Your task to perform on an android device: What's US dollar exchange rateagainst the Mexican Peso? Image 0: 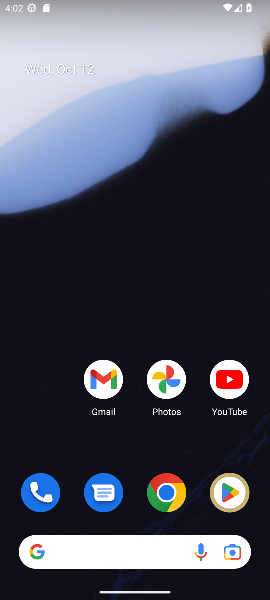
Step 0: click (176, 500)
Your task to perform on an android device: What's US dollar exchange rateagainst the Mexican Peso? Image 1: 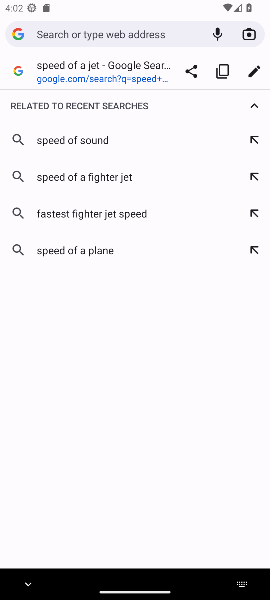
Step 1: click (82, 39)
Your task to perform on an android device: What's US dollar exchange rateagainst the Mexican Peso? Image 2: 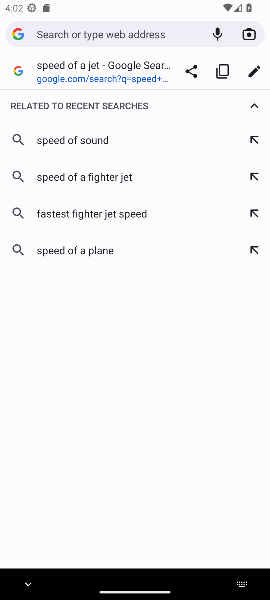
Step 2: type " US dollar exchange rateagainst the Mexican Peso"
Your task to perform on an android device: What's US dollar exchange rateagainst the Mexican Peso? Image 3: 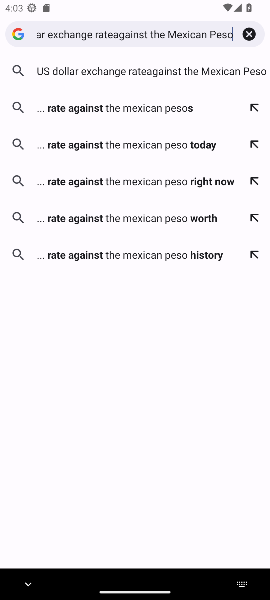
Step 3: click (144, 77)
Your task to perform on an android device: What's US dollar exchange rateagainst the Mexican Peso? Image 4: 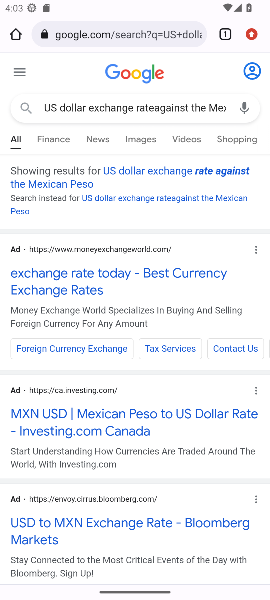
Step 4: click (50, 136)
Your task to perform on an android device: What's US dollar exchange rateagainst the Mexican Peso? Image 5: 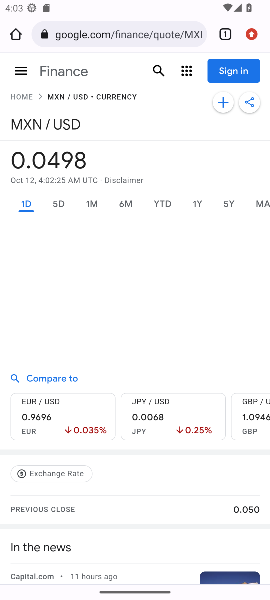
Step 5: task complete